Your task to perform on an android device: check the backup settings in the google photos Image 0: 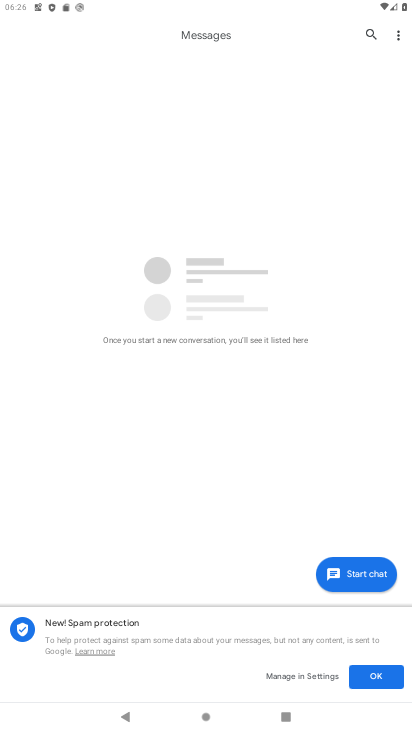
Step 0: press home button
Your task to perform on an android device: check the backup settings in the google photos Image 1: 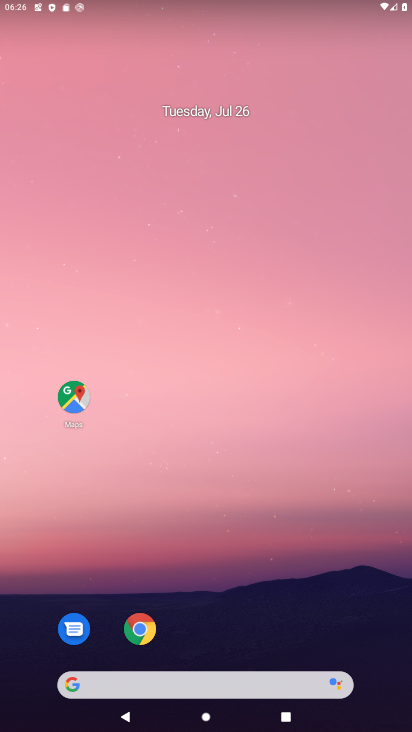
Step 1: drag from (202, 453) to (200, 69)
Your task to perform on an android device: check the backup settings in the google photos Image 2: 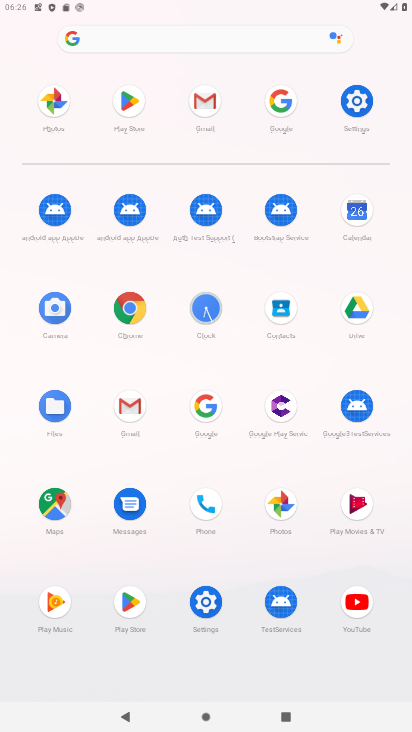
Step 2: click (277, 520)
Your task to perform on an android device: check the backup settings in the google photos Image 3: 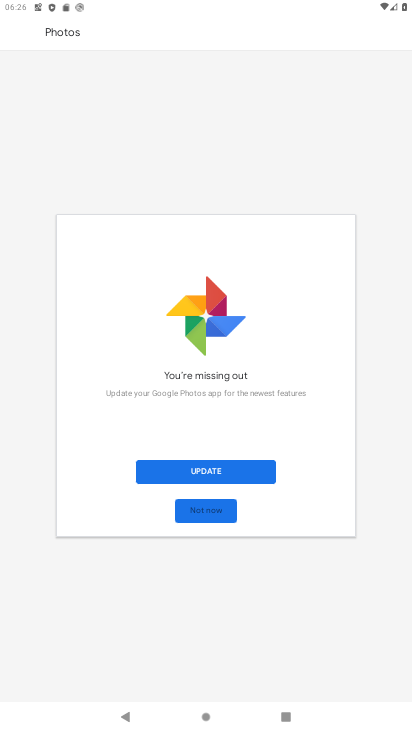
Step 3: click (204, 469)
Your task to perform on an android device: check the backup settings in the google photos Image 4: 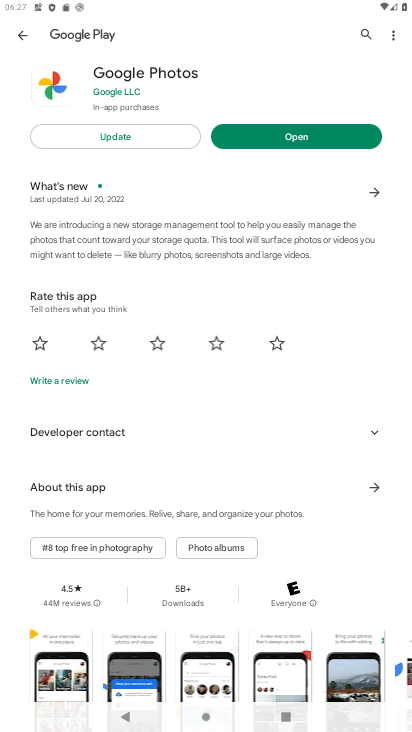
Step 4: click (102, 134)
Your task to perform on an android device: check the backup settings in the google photos Image 5: 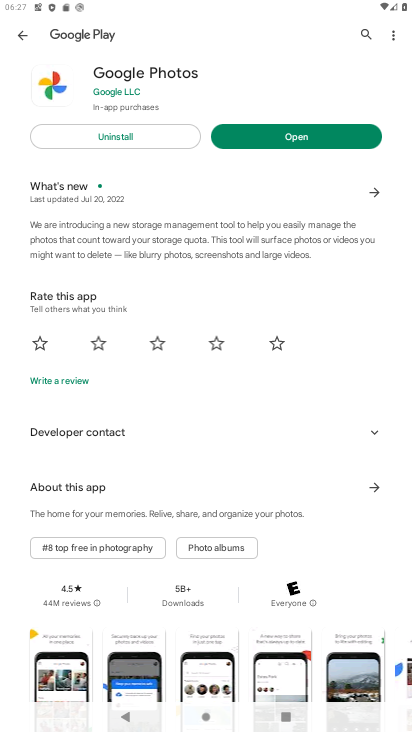
Step 5: click (266, 134)
Your task to perform on an android device: check the backup settings in the google photos Image 6: 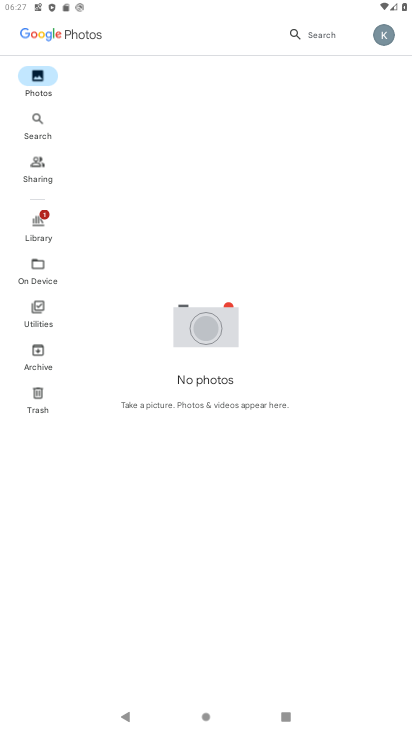
Step 6: click (385, 40)
Your task to perform on an android device: check the backup settings in the google photos Image 7: 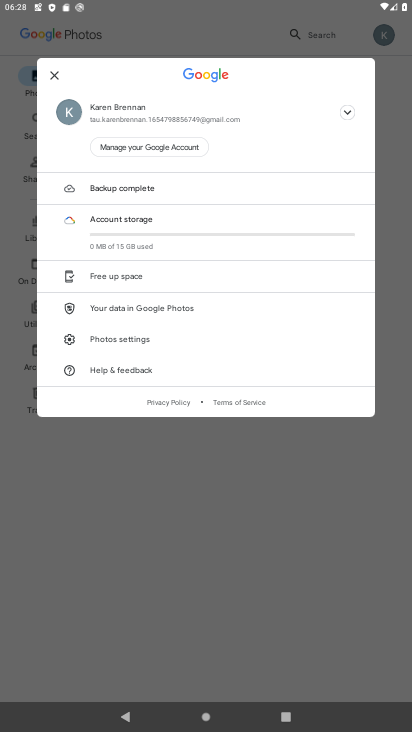
Step 7: click (128, 339)
Your task to perform on an android device: check the backup settings in the google photos Image 8: 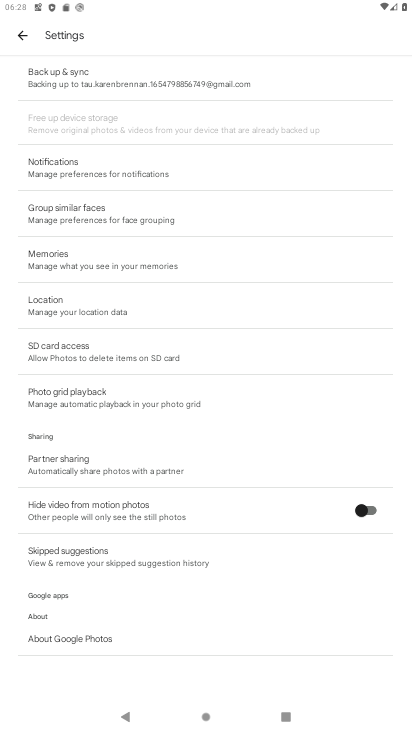
Step 8: click (50, 84)
Your task to perform on an android device: check the backup settings in the google photos Image 9: 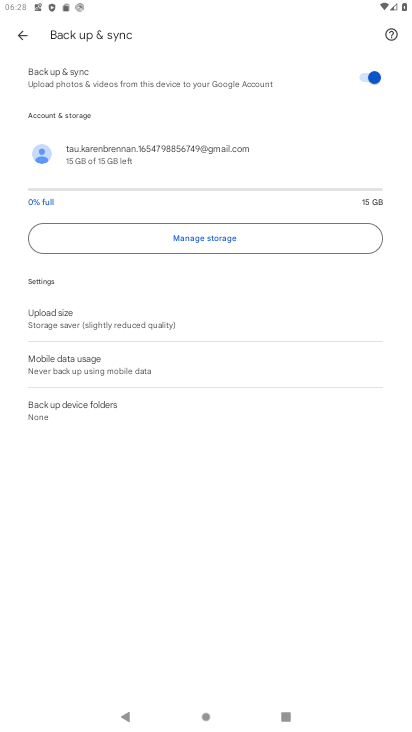
Step 9: task complete